Your task to perform on an android device: Search for seafood restaurants on Google Maps Image 0: 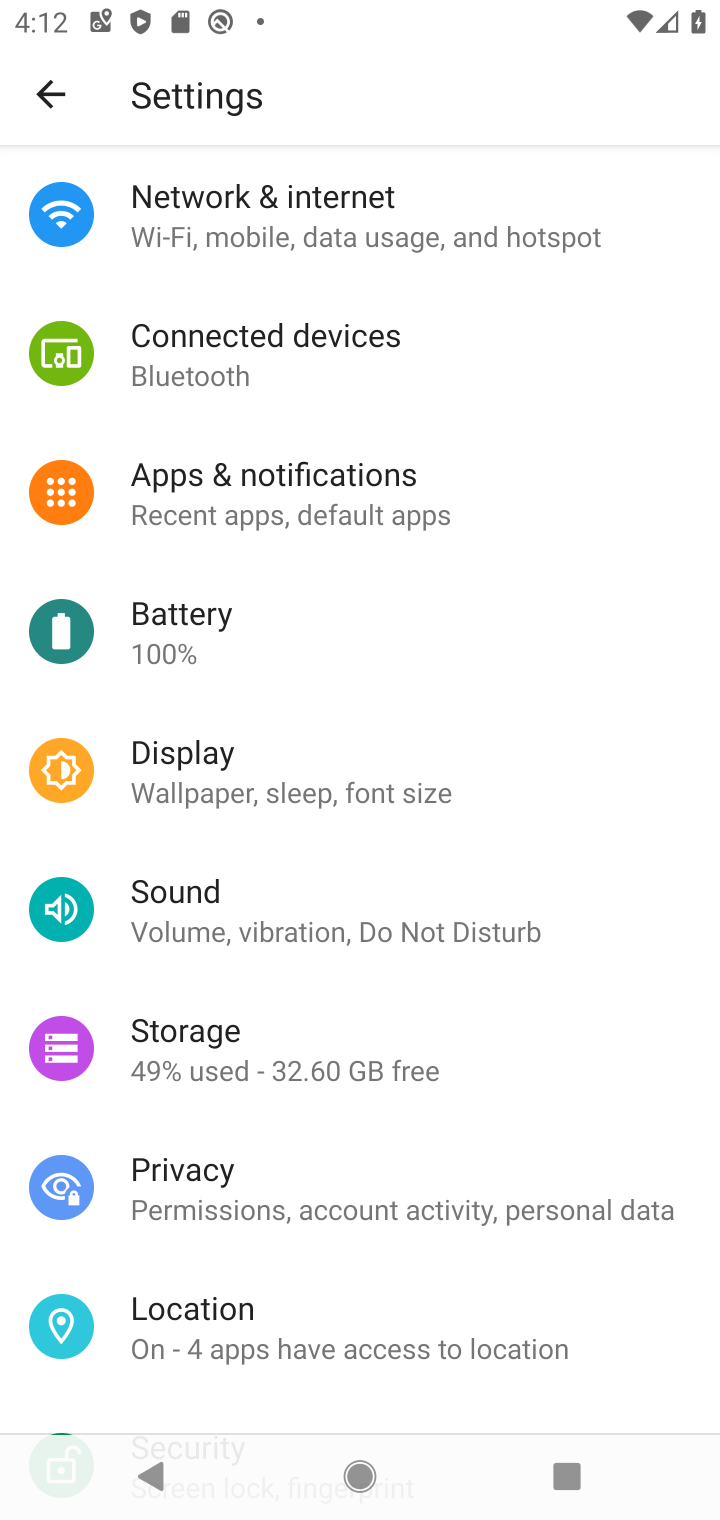
Step 0: press home button
Your task to perform on an android device: Search for seafood restaurants on Google Maps Image 1: 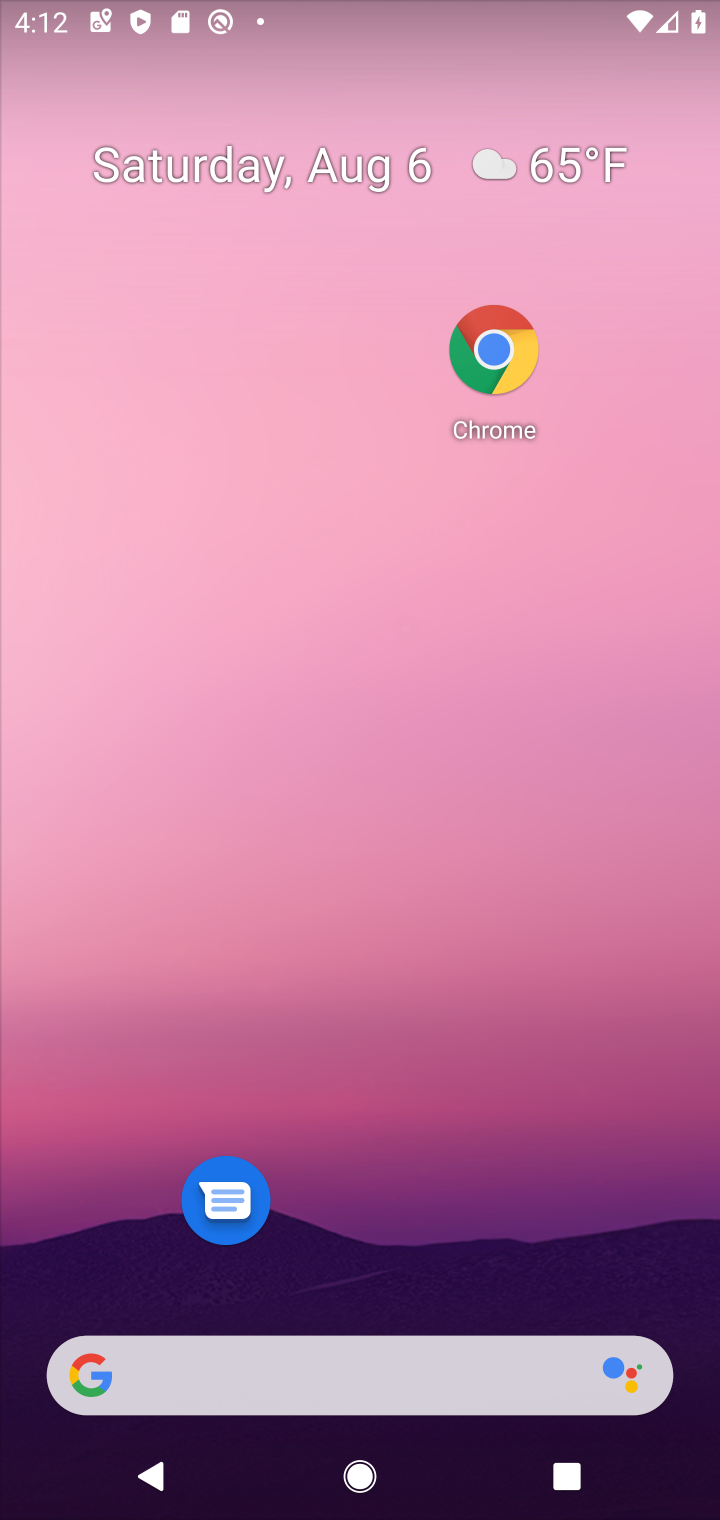
Step 1: drag from (277, 764) to (314, 567)
Your task to perform on an android device: Search for seafood restaurants on Google Maps Image 2: 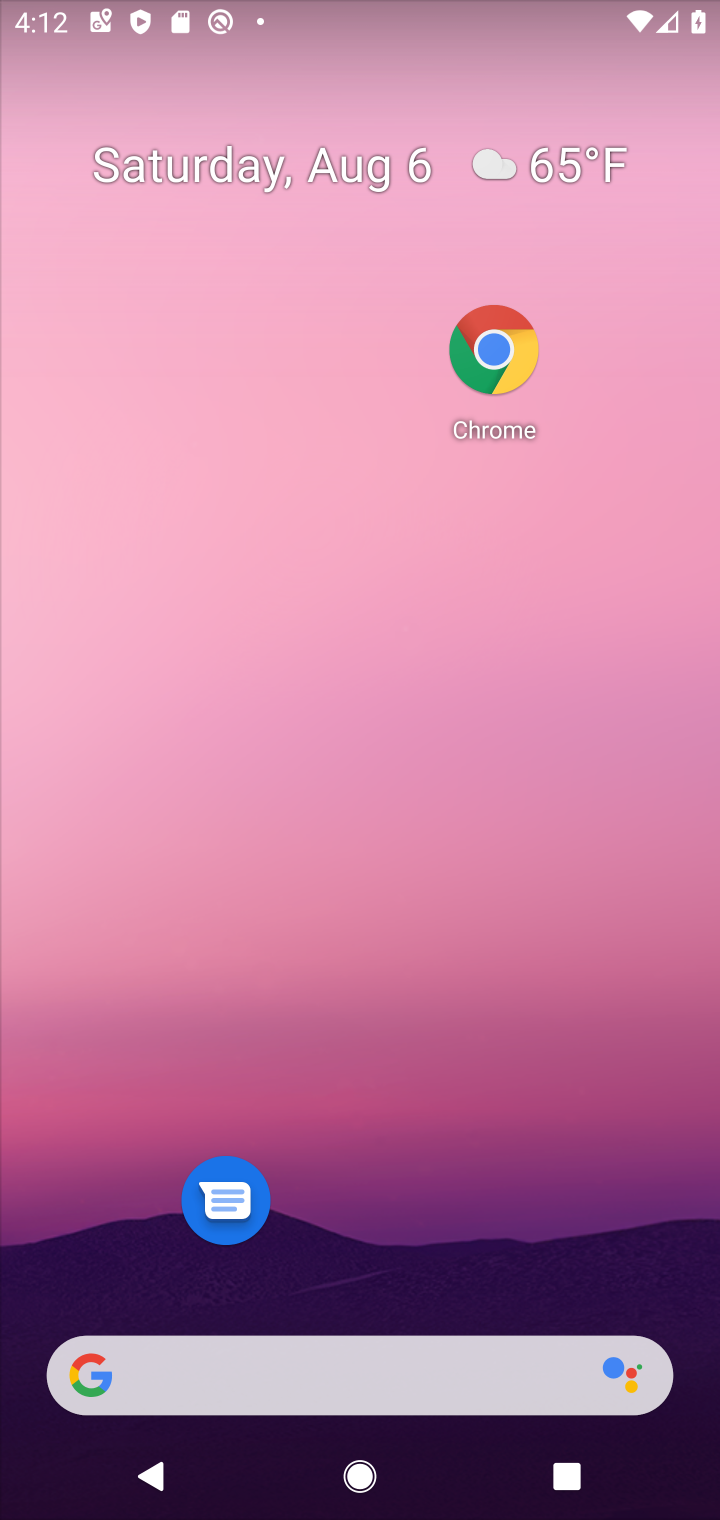
Step 2: drag from (329, 1314) to (265, 631)
Your task to perform on an android device: Search for seafood restaurants on Google Maps Image 3: 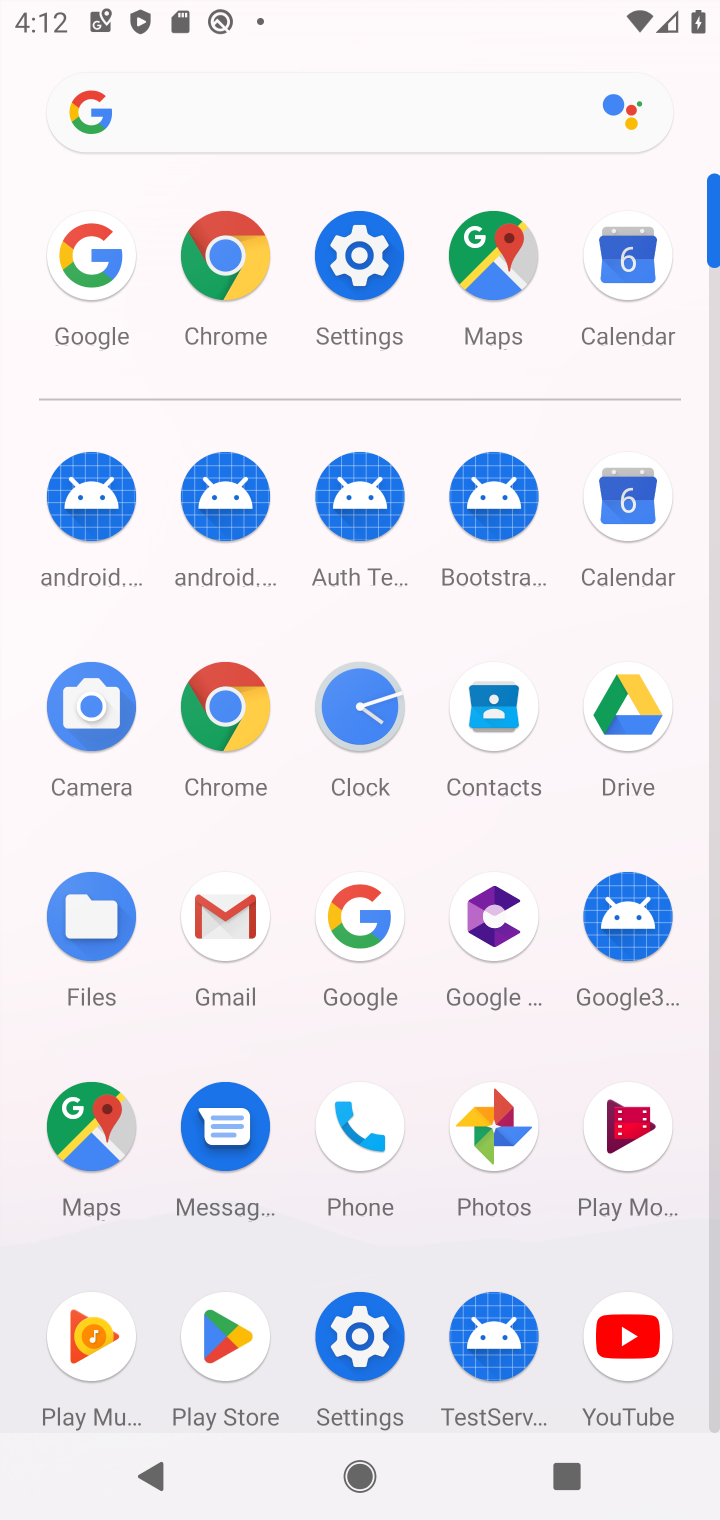
Step 3: click (100, 1131)
Your task to perform on an android device: Search for seafood restaurants on Google Maps Image 4: 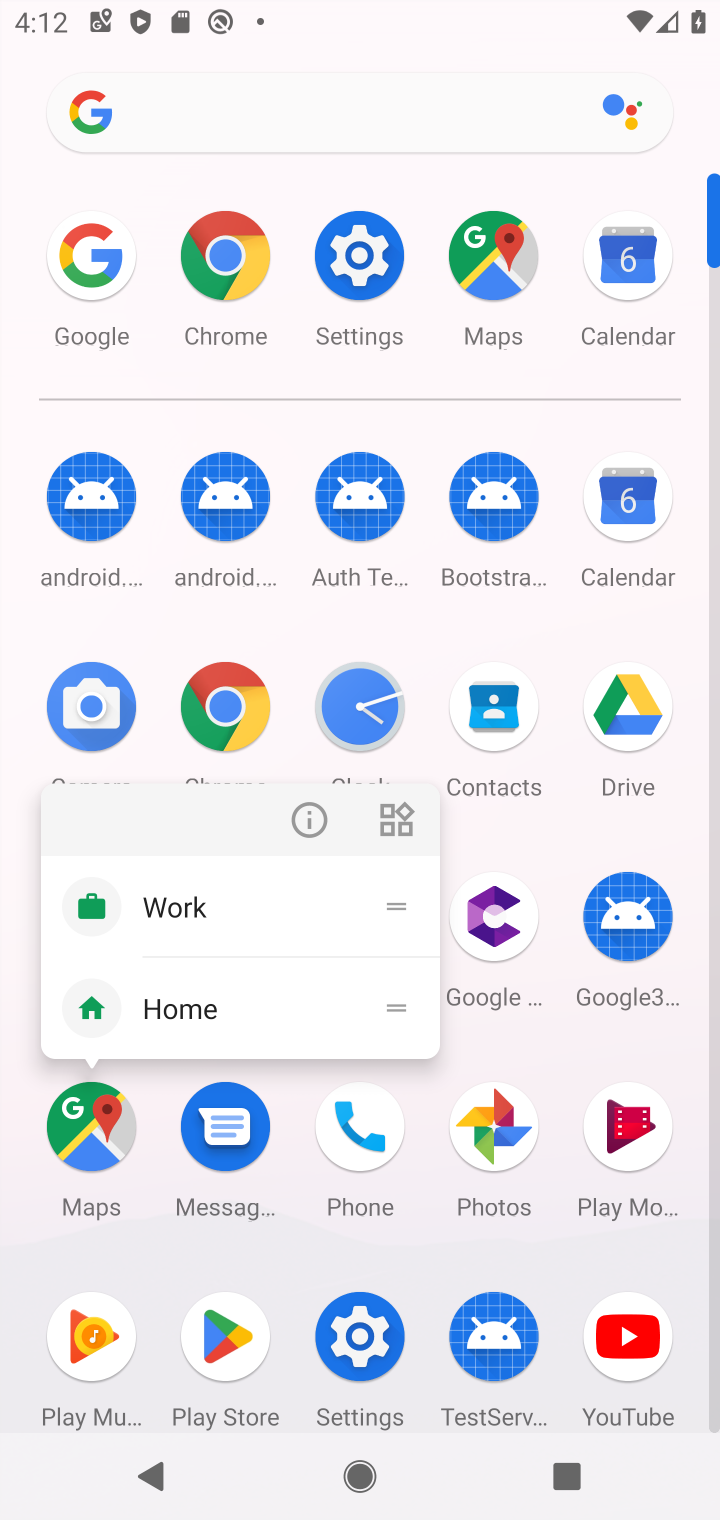
Step 4: click (473, 286)
Your task to perform on an android device: Search for seafood restaurants on Google Maps Image 5: 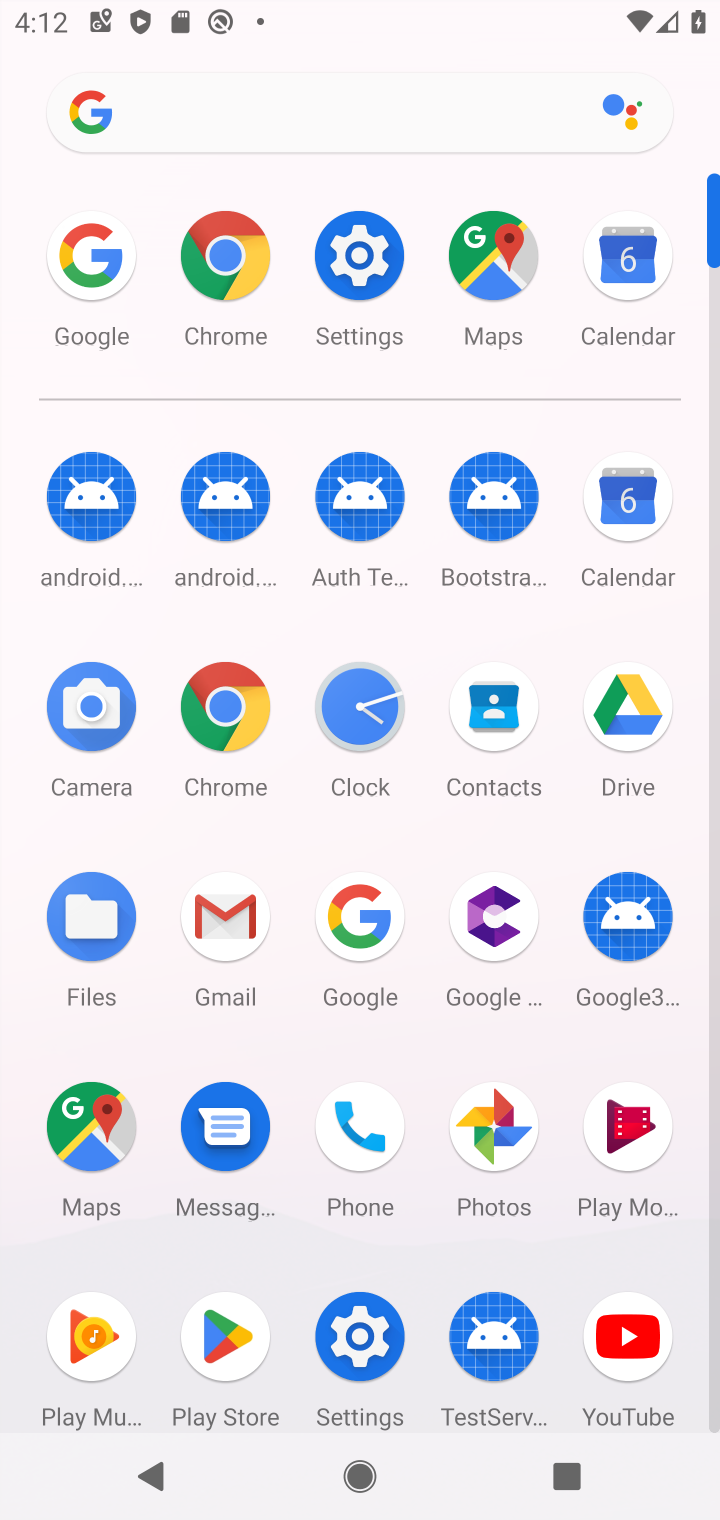
Step 5: click (473, 286)
Your task to perform on an android device: Search for seafood restaurants on Google Maps Image 6: 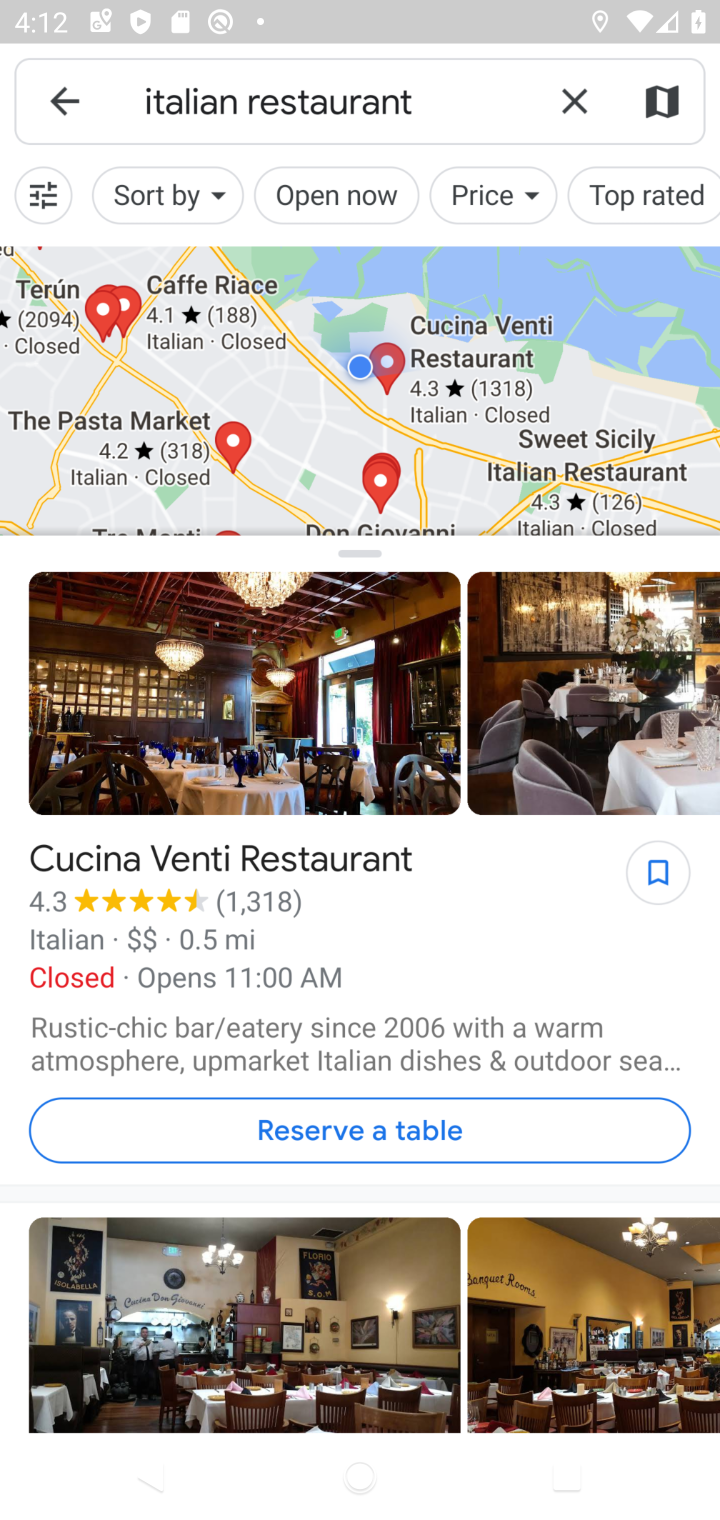
Step 6: click (564, 101)
Your task to perform on an android device: Search for seafood restaurants on Google Maps Image 7: 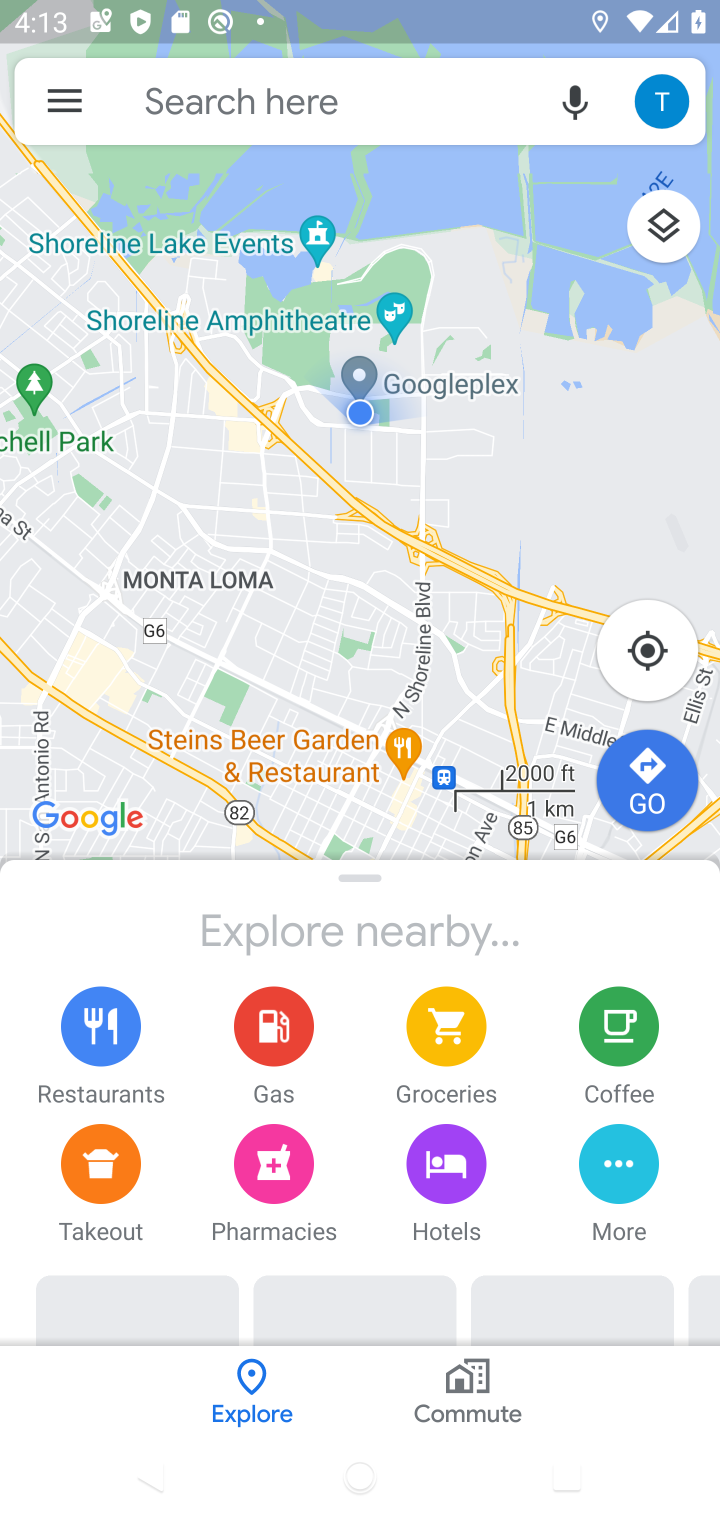
Step 7: click (473, 103)
Your task to perform on an android device: Search for seafood restaurants on Google Maps Image 8: 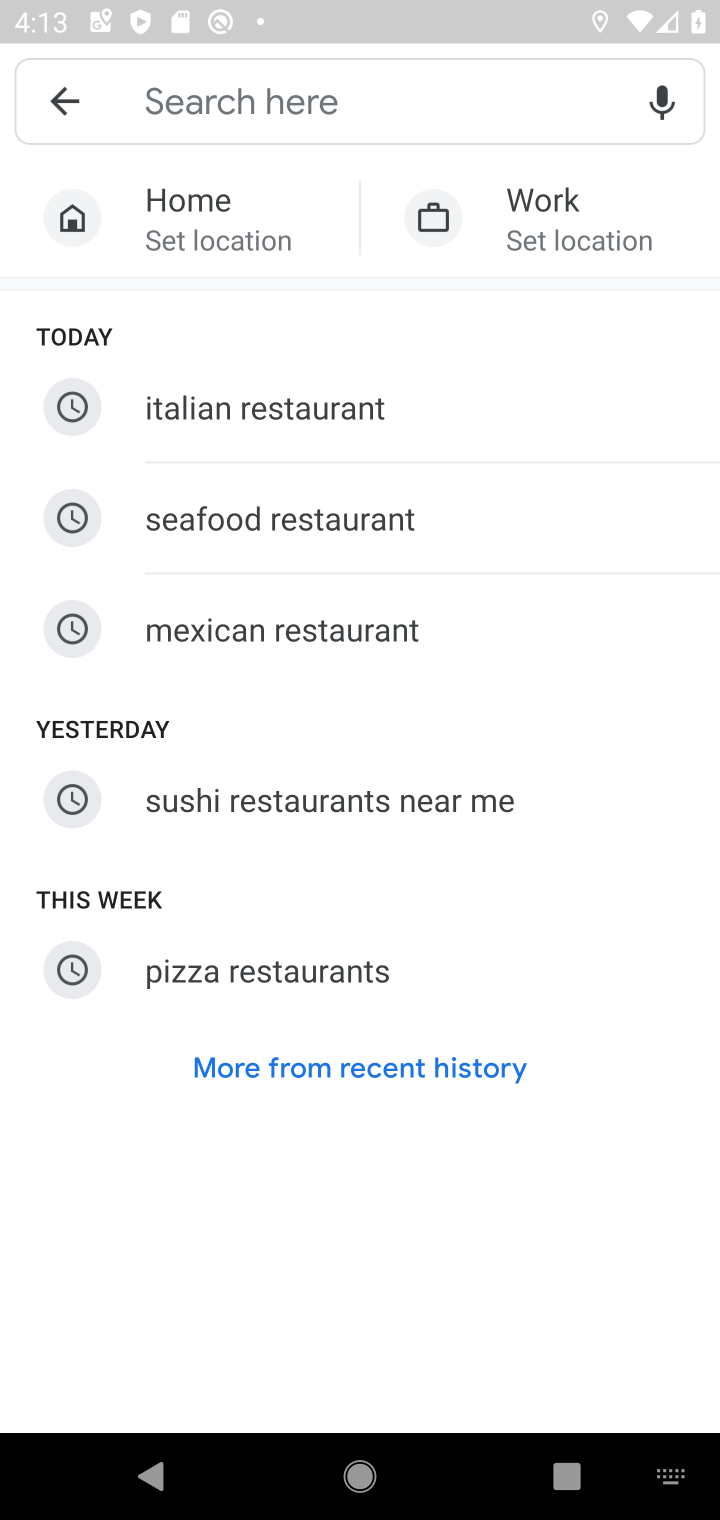
Step 8: click (279, 527)
Your task to perform on an android device: Search for seafood restaurants on Google Maps Image 9: 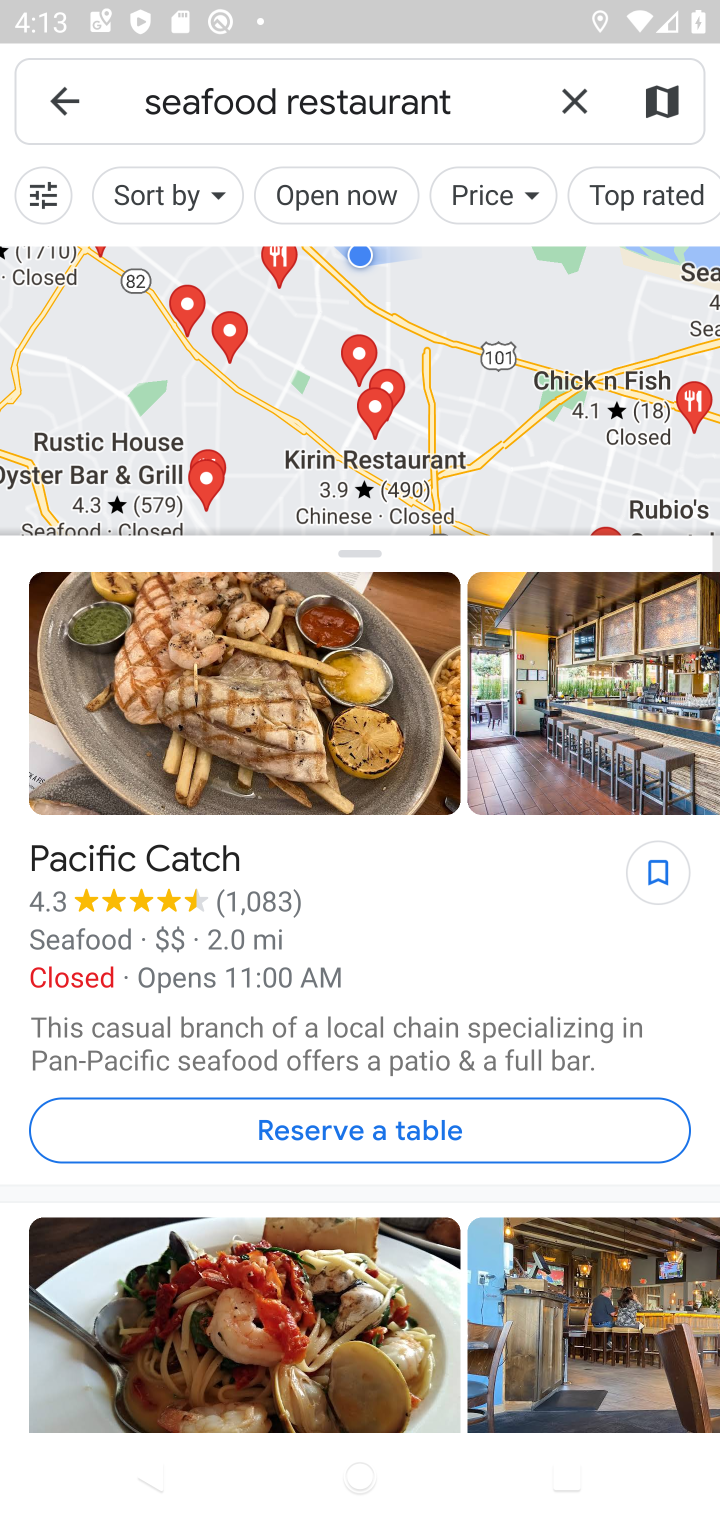
Step 9: task complete